Your task to perform on an android device: What's the weather? Image 0: 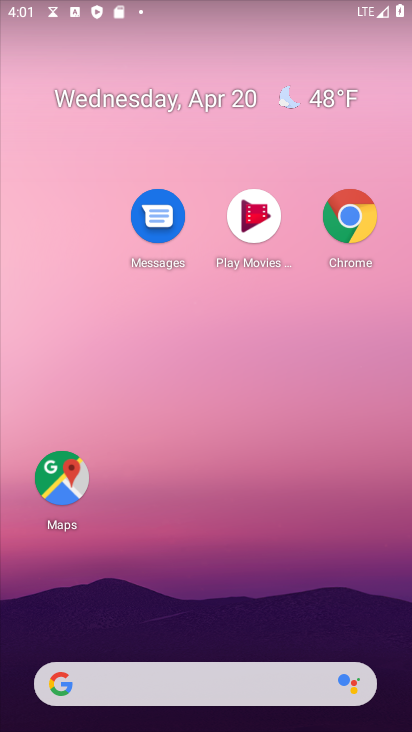
Step 0: click (272, 605)
Your task to perform on an android device: What's the weather? Image 1: 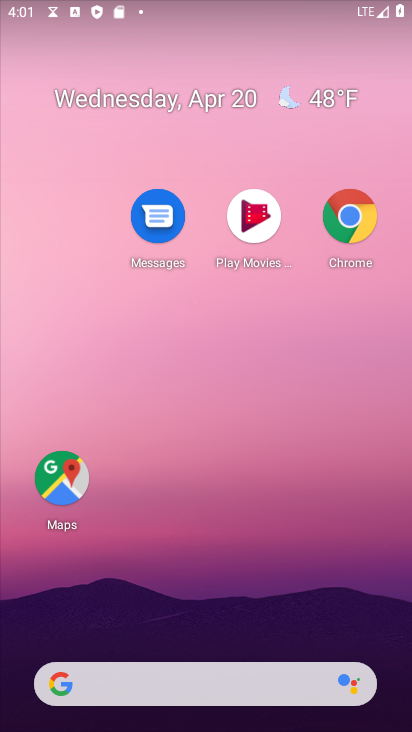
Step 1: click (323, 94)
Your task to perform on an android device: What's the weather? Image 2: 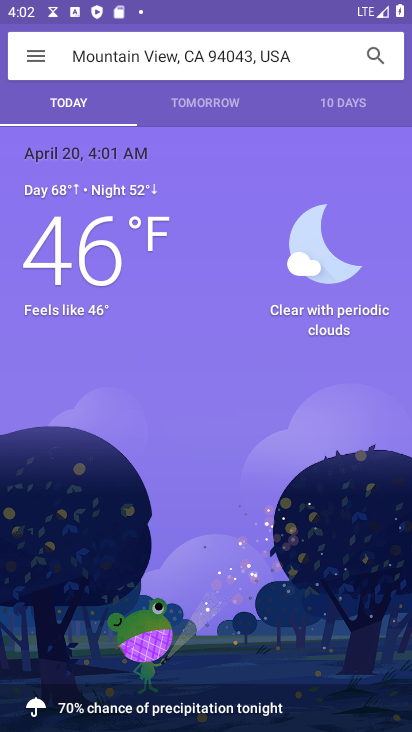
Step 2: task complete